Your task to perform on an android device: turn off location Image 0: 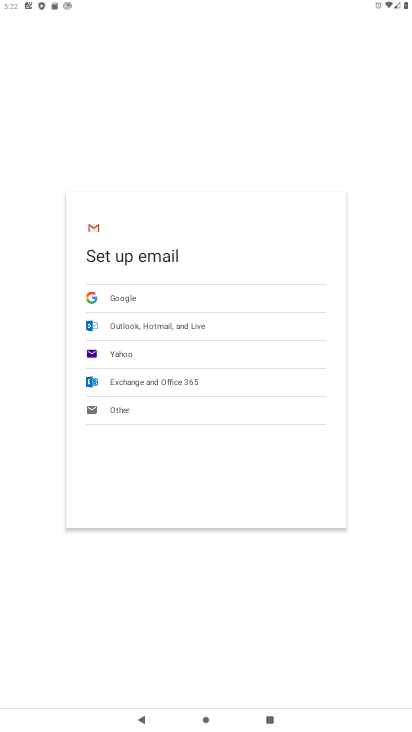
Step 0: press home button
Your task to perform on an android device: turn off location Image 1: 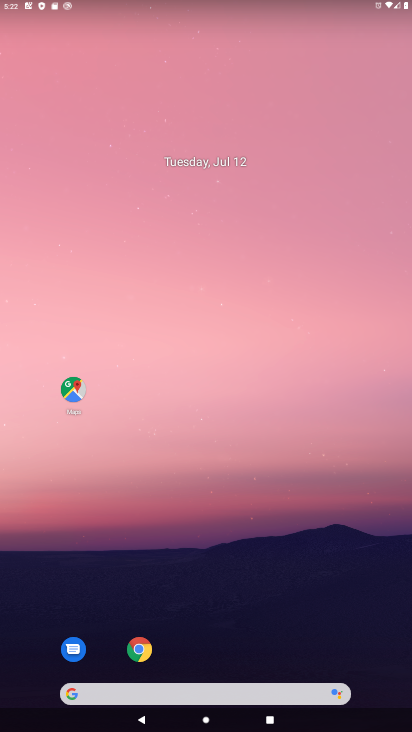
Step 1: drag from (180, 694) to (151, 246)
Your task to perform on an android device: turn off location Image 2: 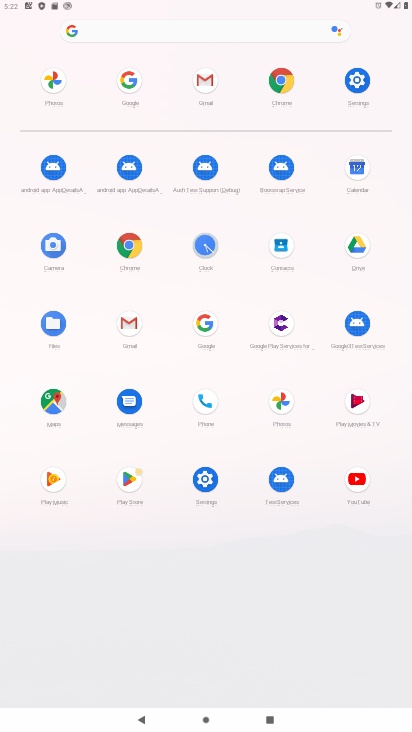
Step 2: click (356, 80)
Your task to perform on an android device: turn off location Image 3: 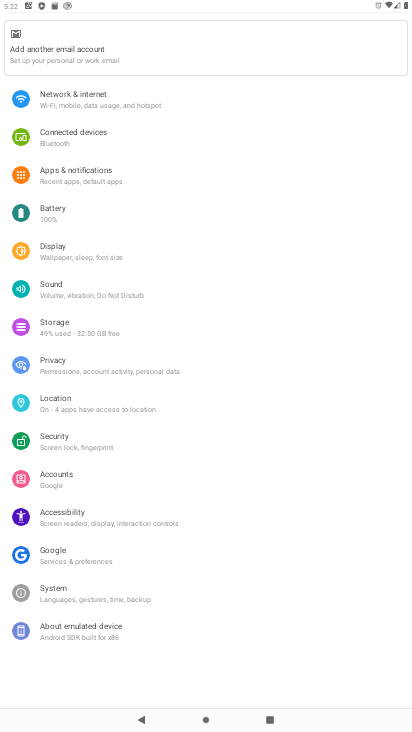
Step 3: click (81, 408)
Your task to perform on an android device: turn off location Image 4: 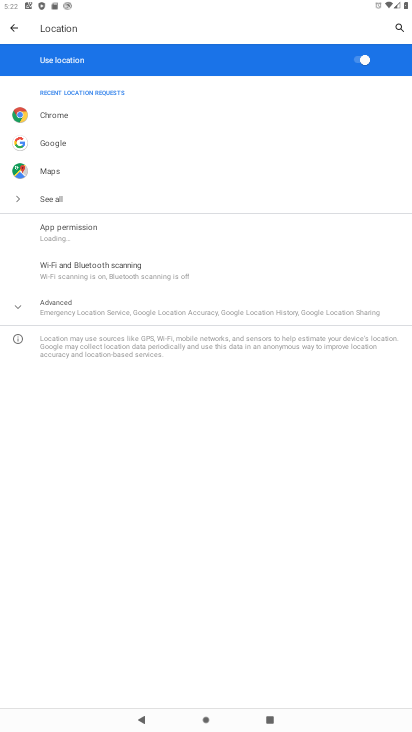
Step 4: click (363, 57)
Your task to perform on an android device: turn off location Image 5: 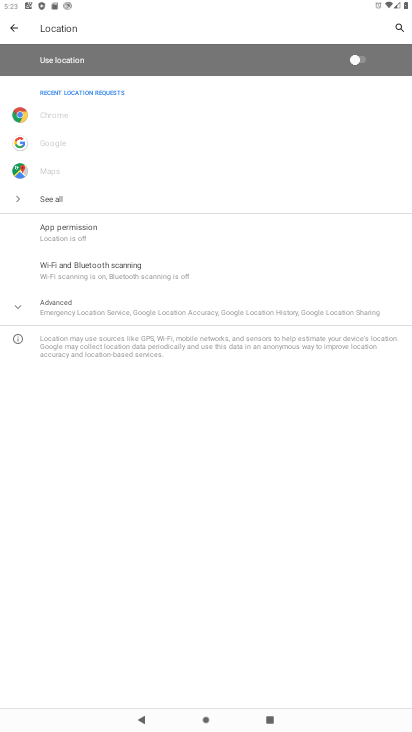
Step 5: task complete